Your task to perform on an android device: open app "Google News" (install if not already installed) Image 0: 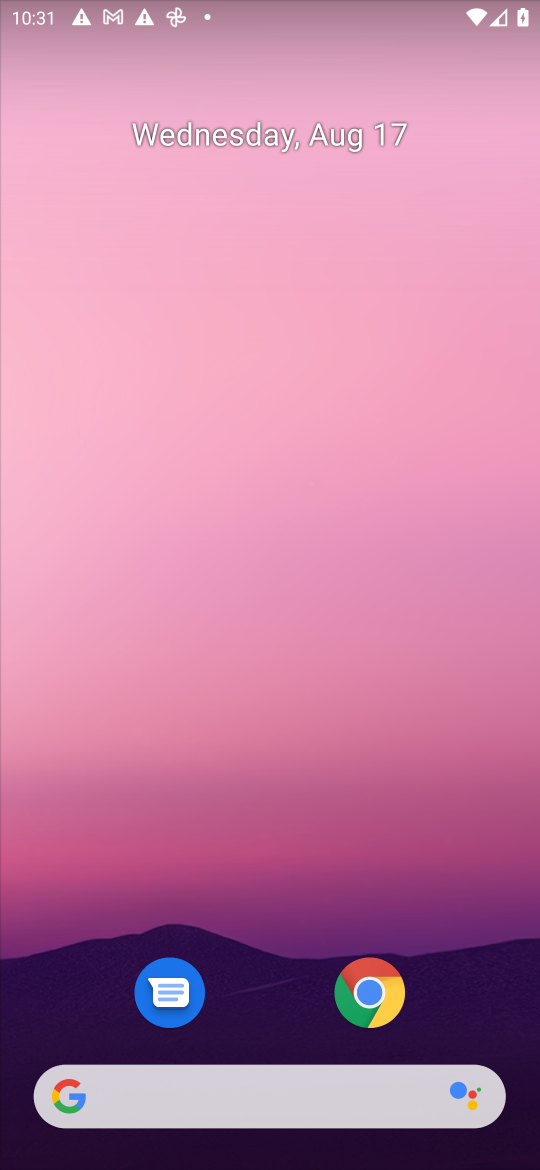
Step 0: drag from (481, 992) to (131, 155)
Your task to perform on an android device: open app "Google News" (install if not already installed) Image 1: 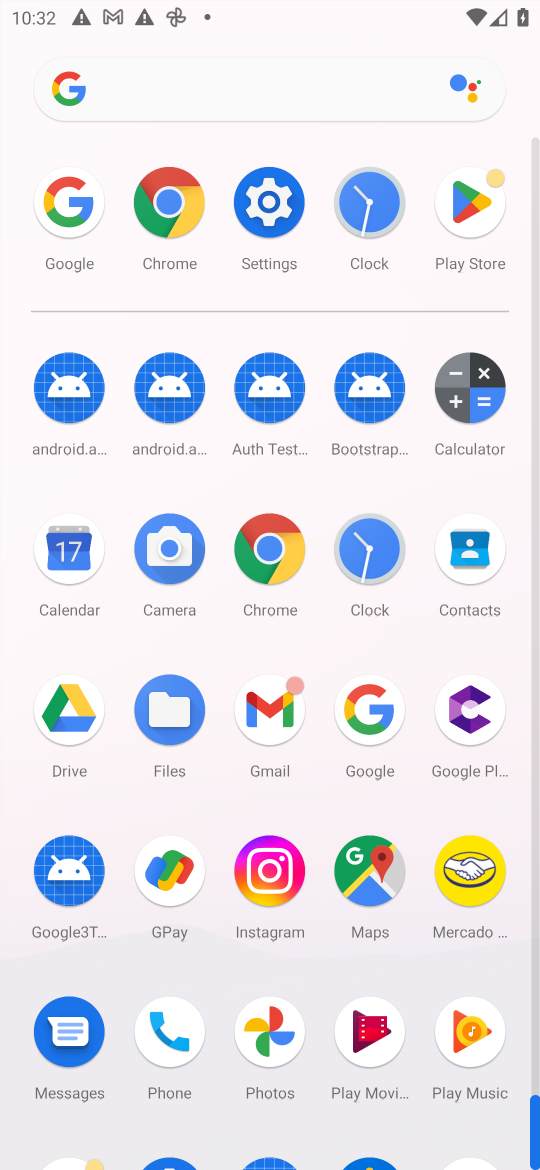
Step 1: click (455, 209)
Your task to perform on an android device: open app "Google News" (install if not already installed) Image 2: 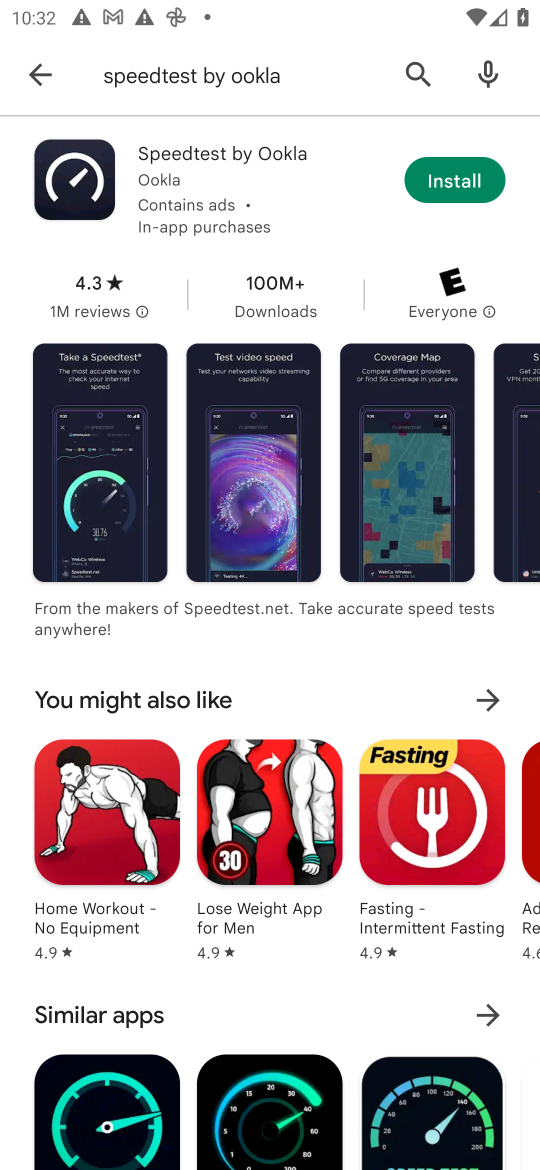
Step 2: press back button
Your task to perform on an android device: open app "Google News" (install if not already installed) Image 3: 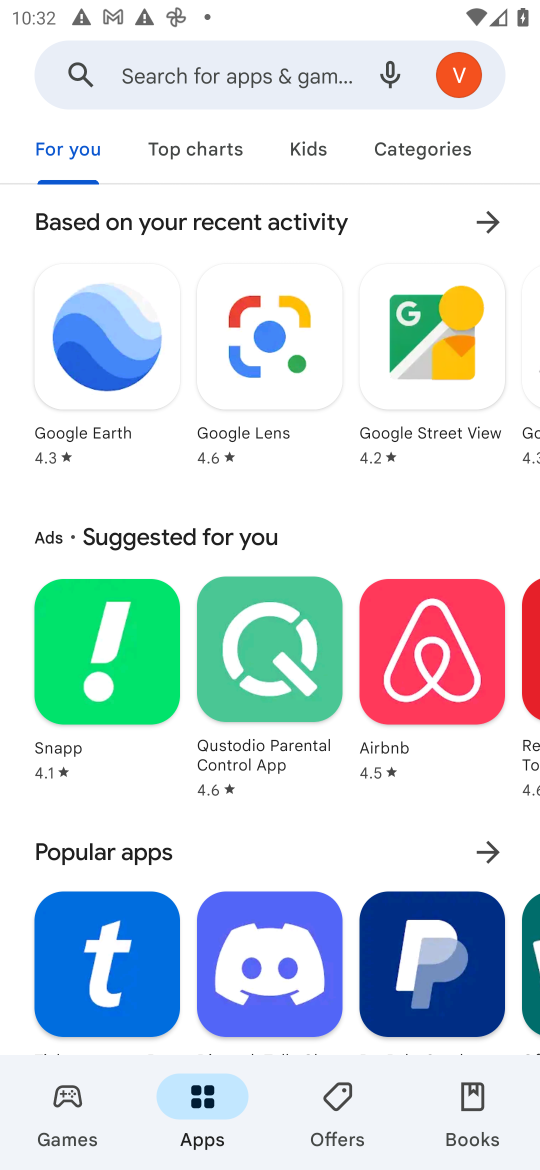
Step 3: click (229, 78)
Your task to perform on an android device: open app "Google News" (install if not already installed) Image 4: 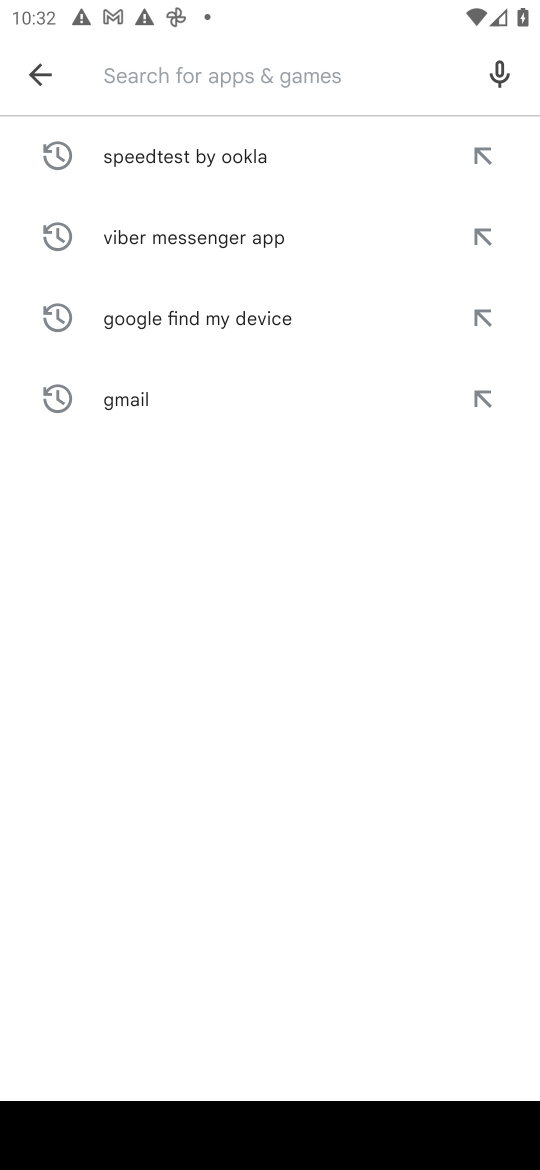
Step 4: type "Google News"
Your task to perform on an android device: open app "Google News" (install if not already installed) Image 5: 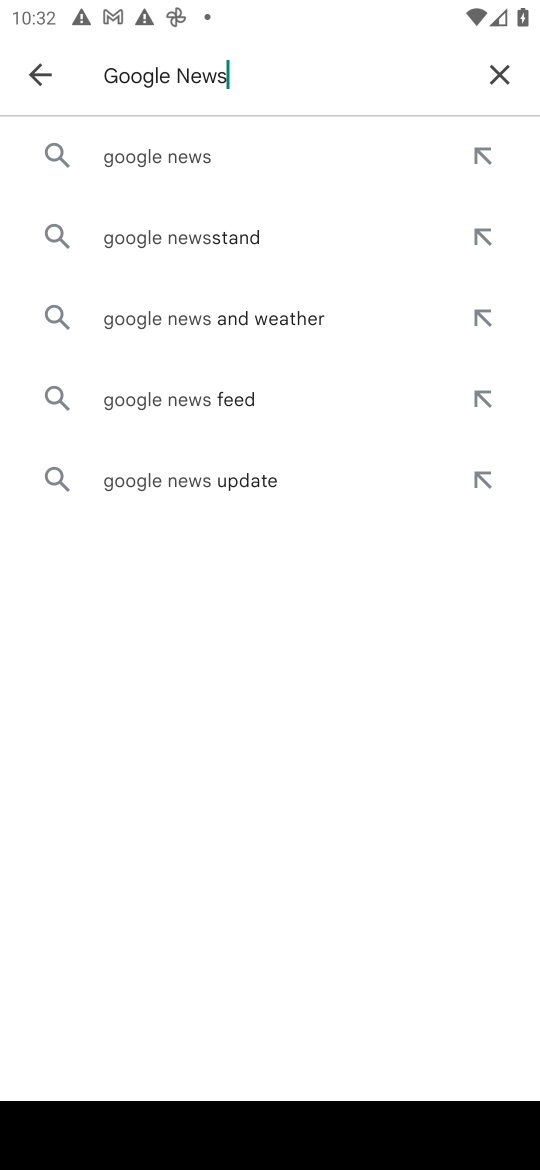
Step 5: click (123, 136)
Your task to perform on an android device: open app "Google News" (install if not already installed) Image 6: 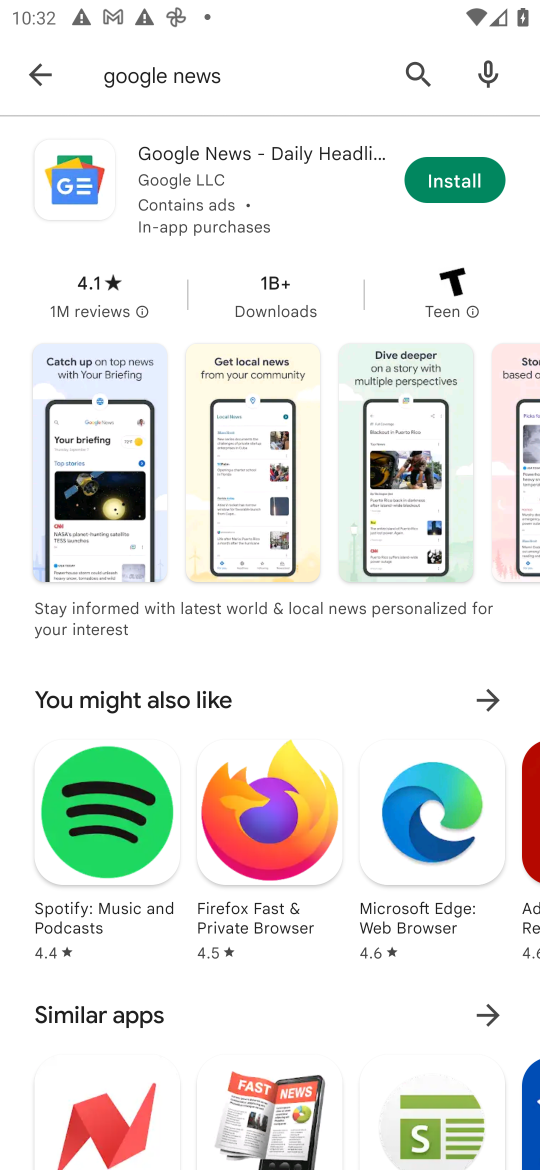
Step 6: task complete